Your task to perform on an android device: toggle wifi Image 0: 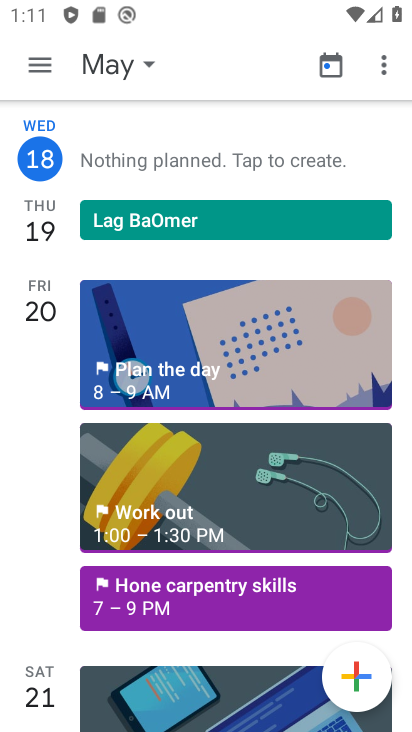
Step 0: press home button
Your task to perform on an android device: toggle wifi Image 1: 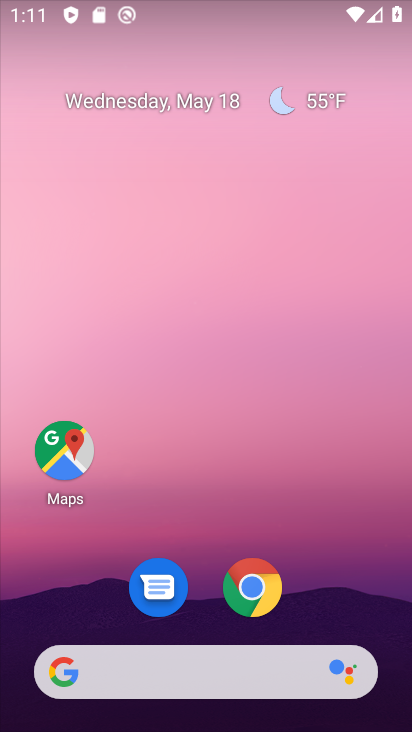
Step 1: drag from (222, 655) to (139, 5)
Your task to perform on an android device: toggle wifi Image 2: 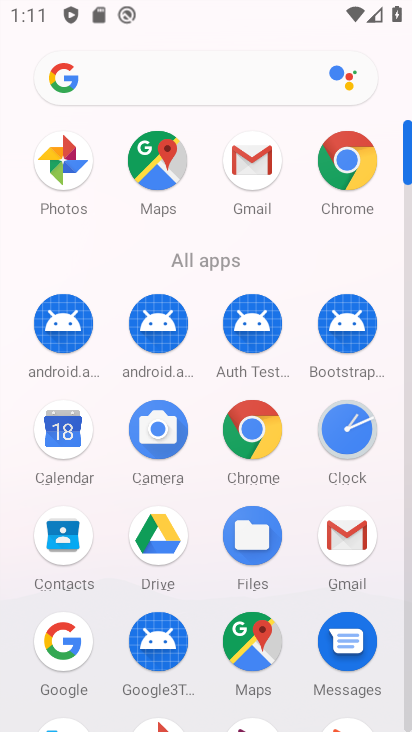
Step 2: drag from (205, 574) to (195, 101)
Your task to perform on an android device: toggle wifi Image 3: 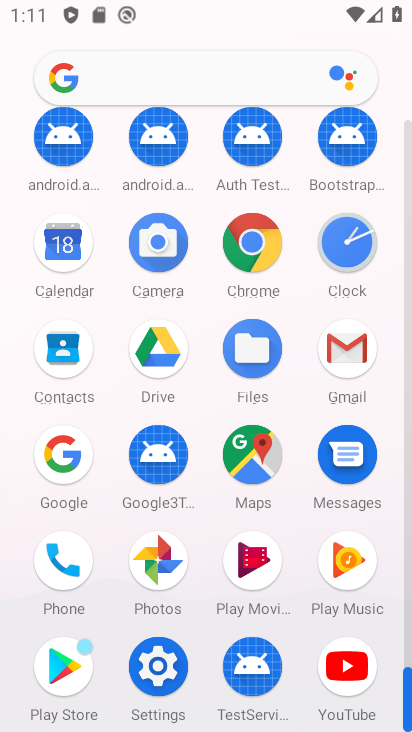
Step 3: click (158, 669)
Your task to perform on an android device: toggle wifi Image 4: 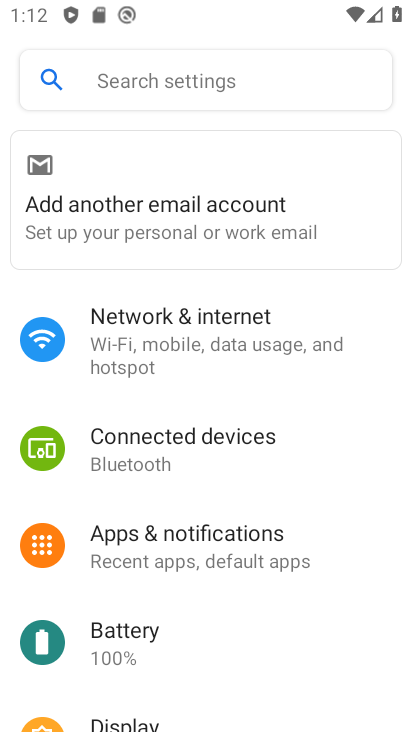
Step 4: click (180, 346)
Your task to perform on an android device: toggle wifi Image 5: 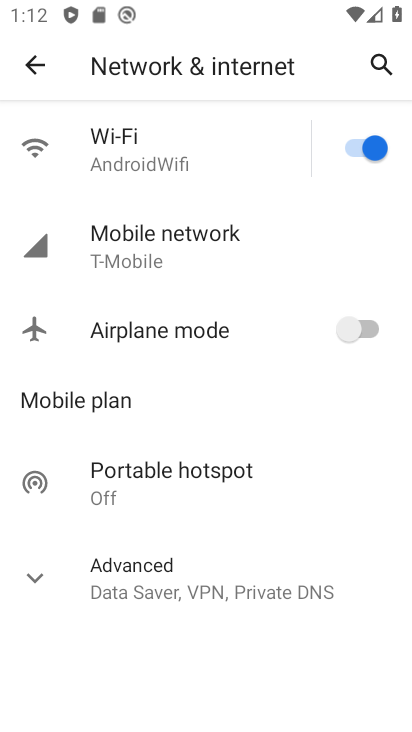
Step 5: click (351, 146)
Your task to perform on an android device: toggle wifi Image 6: 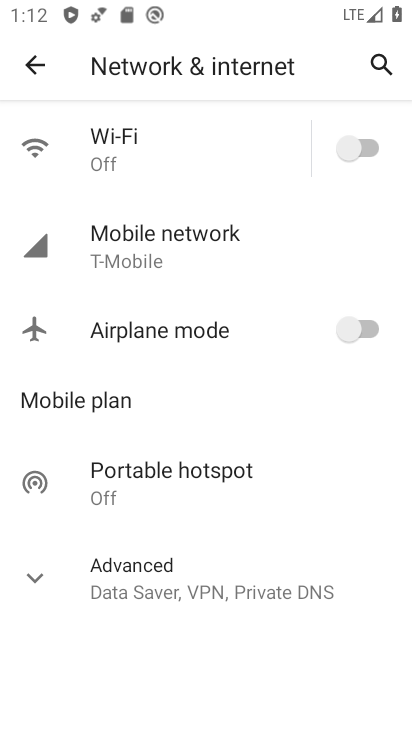
Step 6: task complete